Your task to perform on an android device: open app "Etsy: Buy & Sell Unique Items" (install if not already installed), go to login, and select forgot password Image 0: 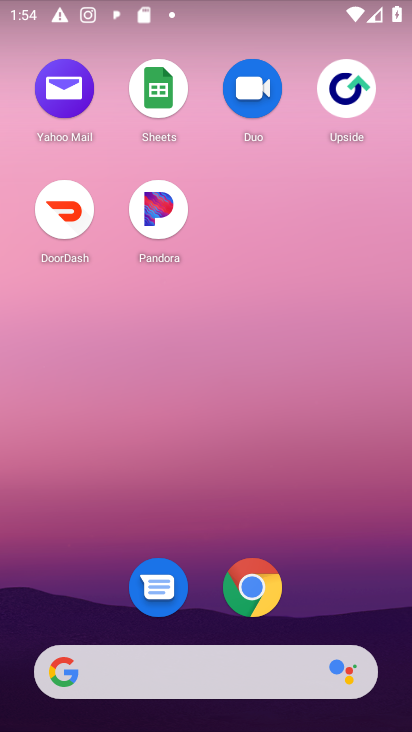
Step 0: press home button
Your task to perform on an android device: open app "Etsy: Buy & Sell Unique Items" (install if not already installed), go to login, and select forgot password Image 1: 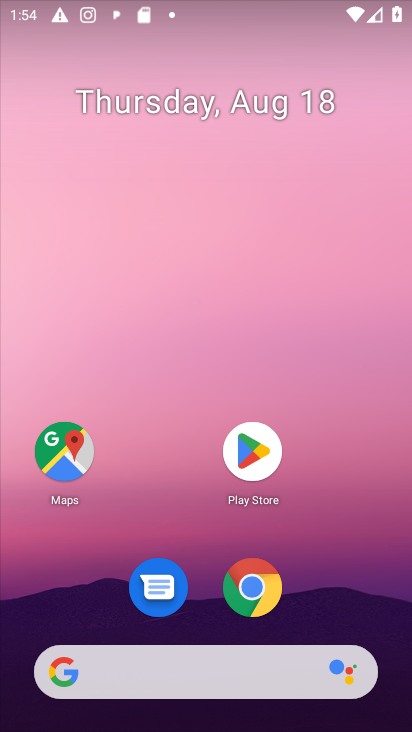
Step 1: click (235, 464)
Your task to perform on an android device: open app "Etsy: Buy & Sell Unique Items" (install if not already installed), go to login, and select forgot password Image 2: 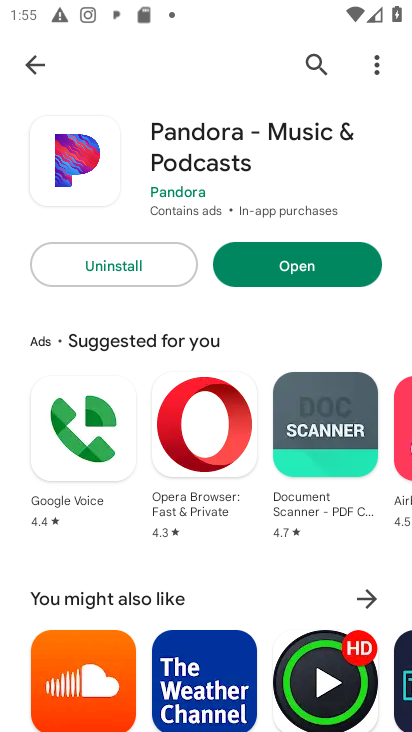
Step 2: click (305, 53)
Your task to perform on an android device: open app "Etsy: Buy & Sell Unique Items" (install if not already installed), go to login, and select forgot password Image 3: 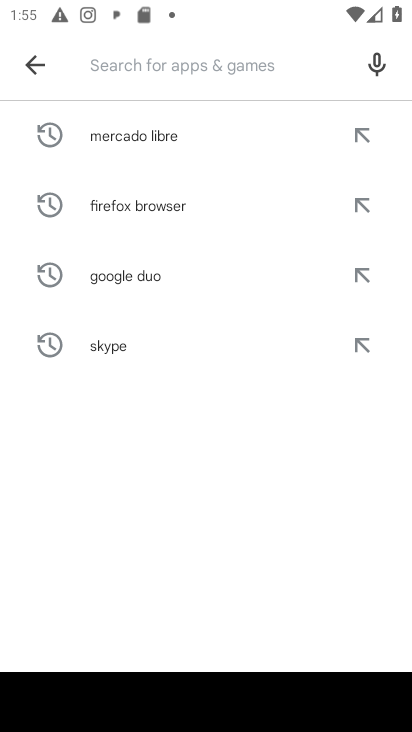
Step 3: type "Etsy: Buy & Sell Unique Items"
Your task to perform on an android device: open app "Etsy: Buy & Sell Unique Items" (install if not already installed), go to login, and select forgot password Image 4: 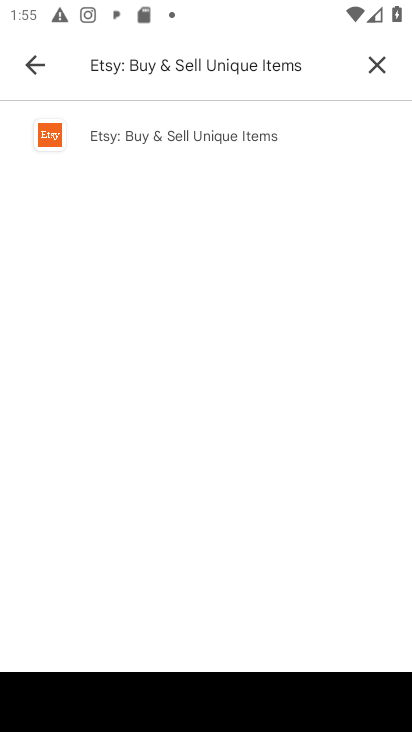
Step 4: click (178, 132)
Your task to perform on an android device: open app "Etsy: Buy & Sell Unique Items" (install if not already installed), go to login, and select forgot password Image 5: 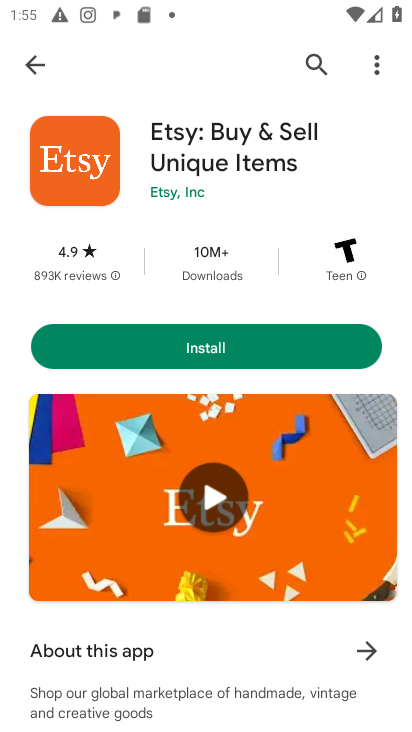
Step 5: click (190, 337)
Your task to perform on an android device: open app "Etsy: Buy & Sell Unique Items" (install if not already installed), go to login, and select forgot password Image 6: 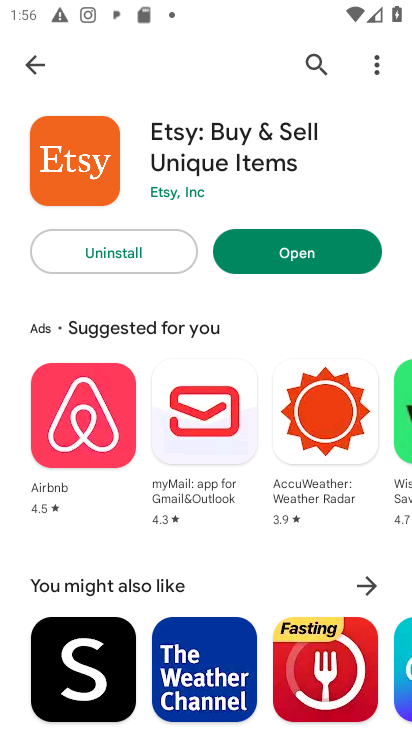
Step 6: click (299, 250)
Your task to perform on an android device: open app "Etsy: Buy & Sell Unique Items" (install if not already installed), go to login, and select forgot password Image 7: 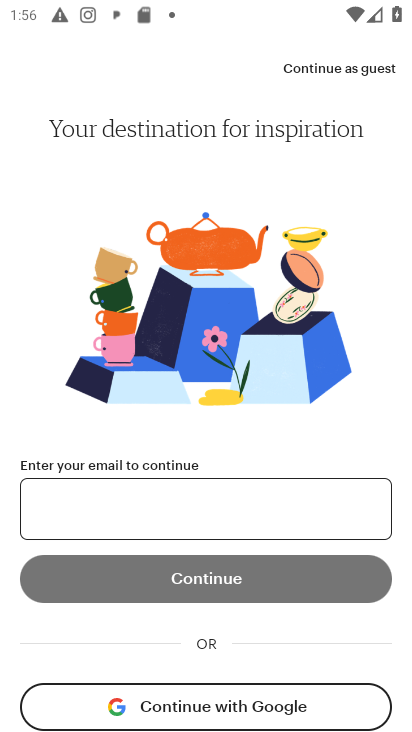
Step 7: task complete